Your task to perform on an android device: remove spam from my inbox in the gmail app Image 0: 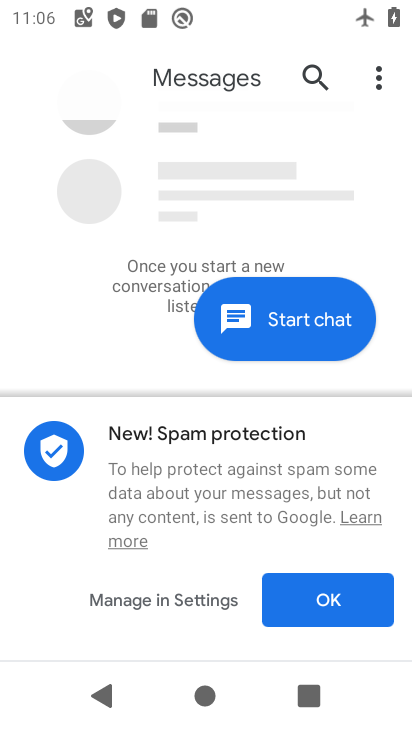
Step 0: press home button
Your task to perform on an android device: remove spam from my inbox in the gmail app Image 1: 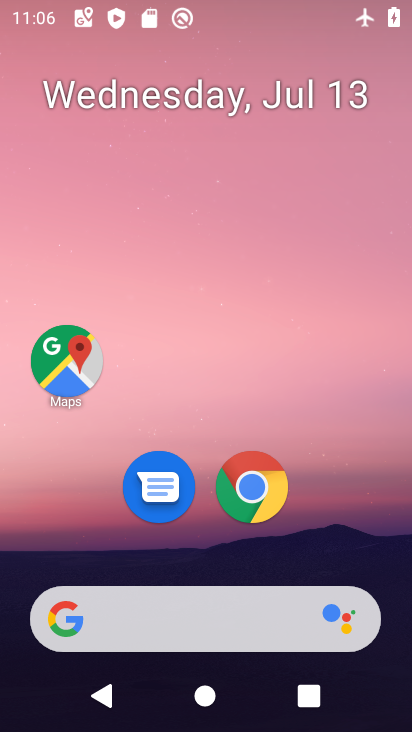
Step 1: drag from (242, 580) to (186, 42)
Your task to perform on an android device: remove spam from my inbox in the gmail app Image 2: 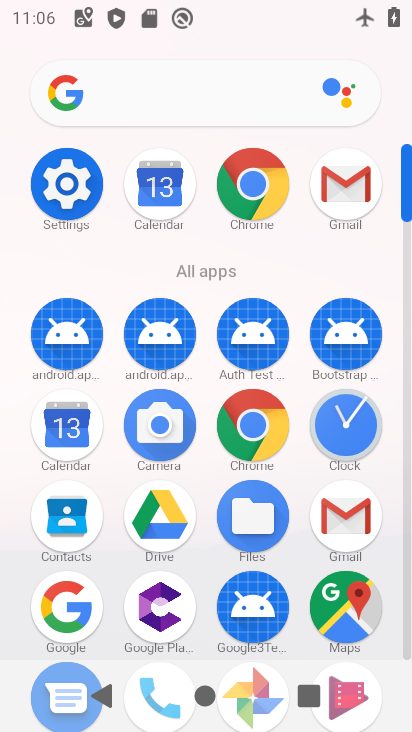
Step 2: click (345, 521)
Your task to perform on an android device: remove spam from my inbox in the gmail app Image 3: 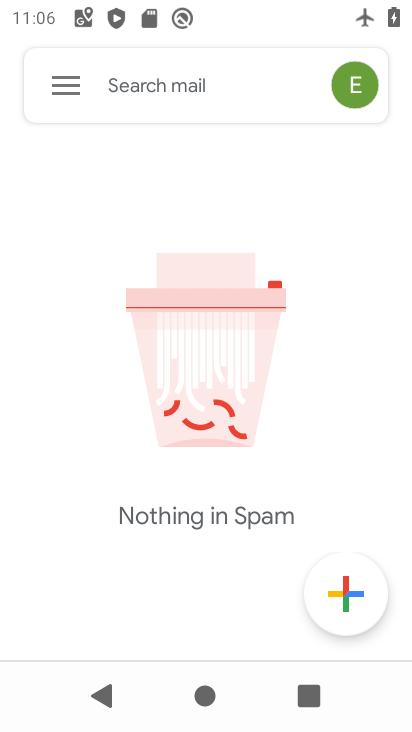
Step 3: click (68, 97)
Your task to perform on an android device: remove spam from my inbox in the gmail app Image 4: 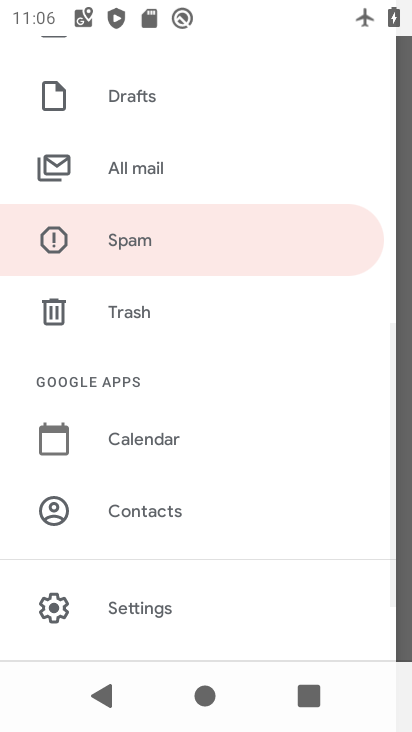
Step 4: click (133, 250)
Your task to perform on an android device: remove spam from my inbox in the gmail app Image 5: 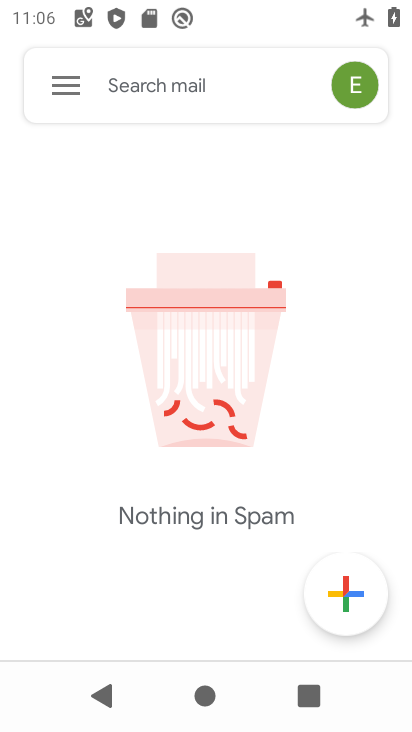
Step 5: task complete